Your task to perform on an android device: Open sound settings Image 0: 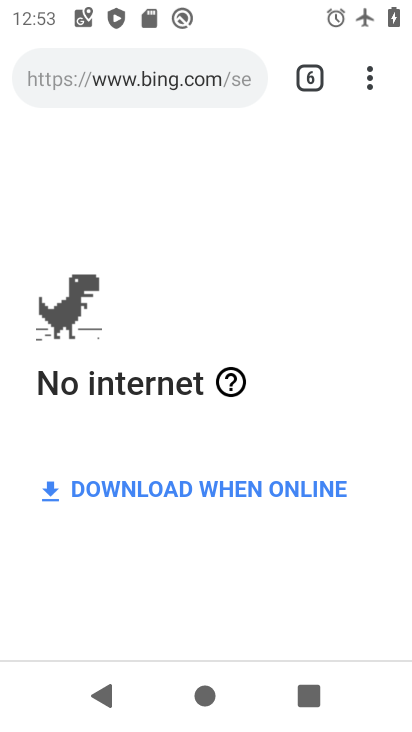
Step 0: press home button
Your task to perform on an android device: Open sound settings Image 1: 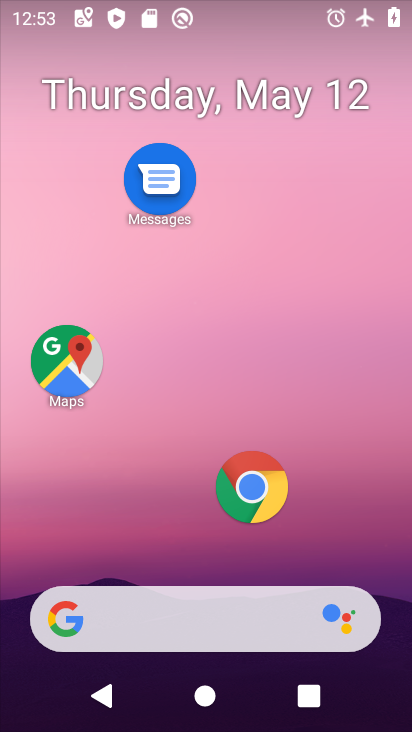
Step 1: drag from (192, 520) to (230, 229)
Your task to perform on an android device: Open sound settings Image 2: 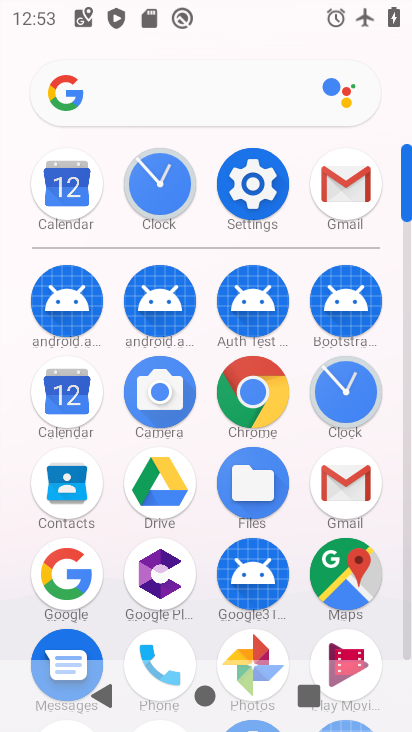
Step 2: click (230, 192)
Your task to perform on an android device: Open sound settings Image 3: 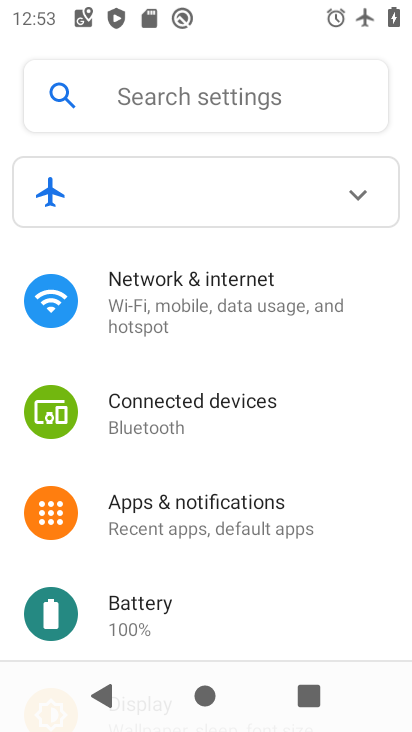
Step 3: drag from (123, 580) to (140, 297)
Your task to perform on an android device: Open sound settings Image 4: 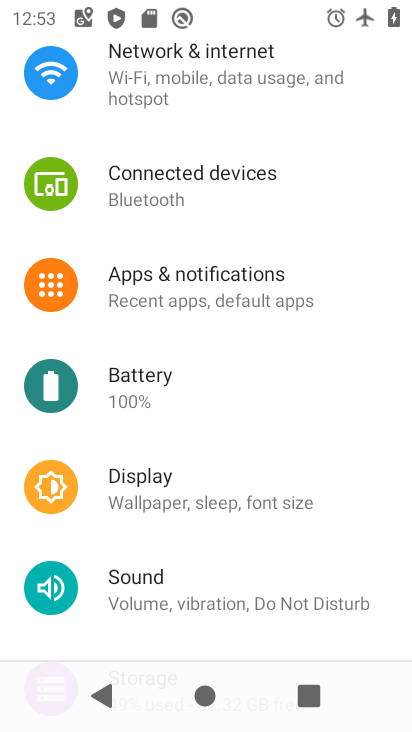
Step 4: click (140, 592)
Your task to perform on an android device: Open sound settings Image 5: 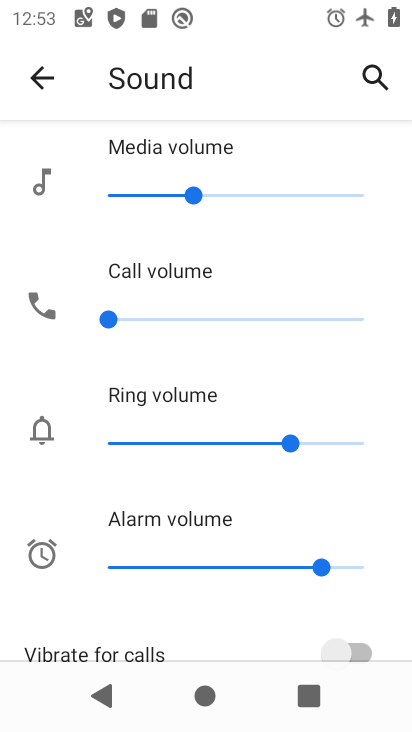
Step 5: task complete